Your task to perform on an android device: Clear the shopping cart on target. Search for "lenovo thinkpad" on target, select the first entry, and add it to the cart. Image 0: 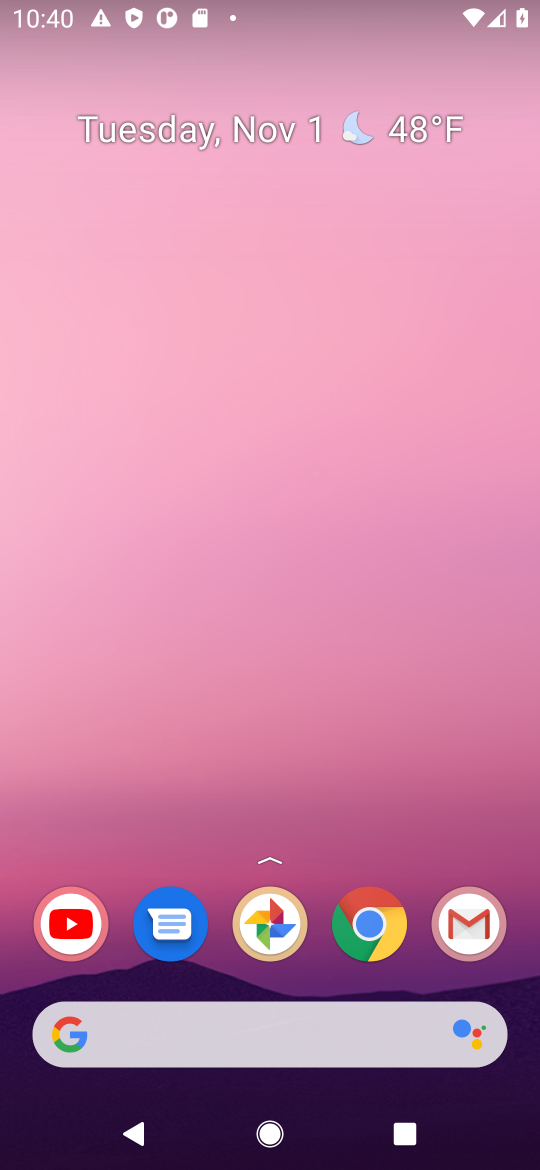
Step 0: click (370, 935)
Your task to perform on an android device: Clear the shopping cart on target. Search for "lenovo thinkpad" on target, select the first entry, and add it to the cart. Image 1: 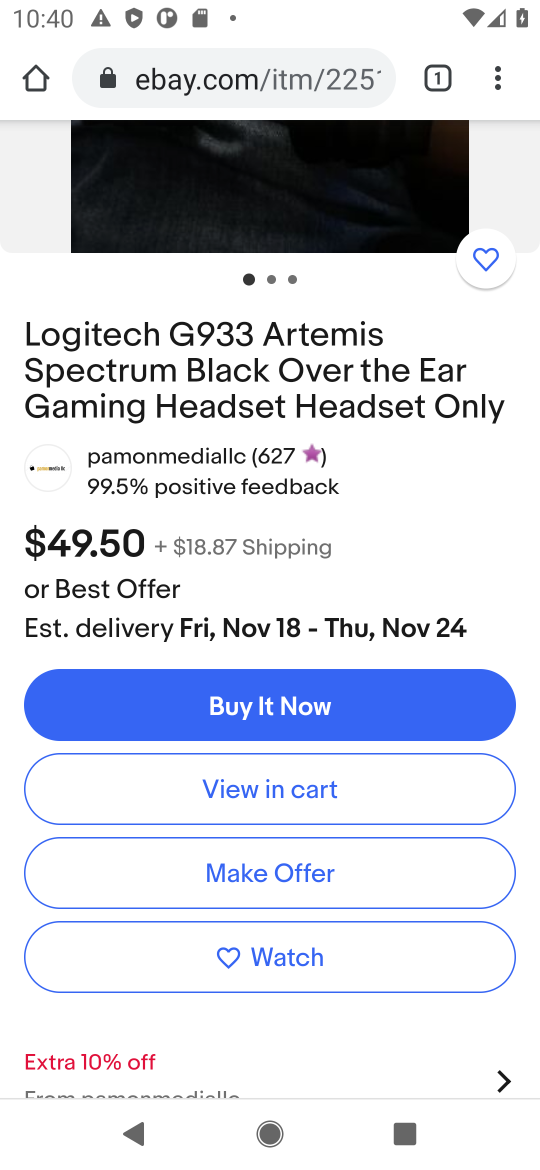
Step 1: click (318, 63)
Your task to perform on an android device: Clear the shopping cart on target. Search for "lenovo thinkpad" on target, select the first entry, and add it to the cart. Image 2: 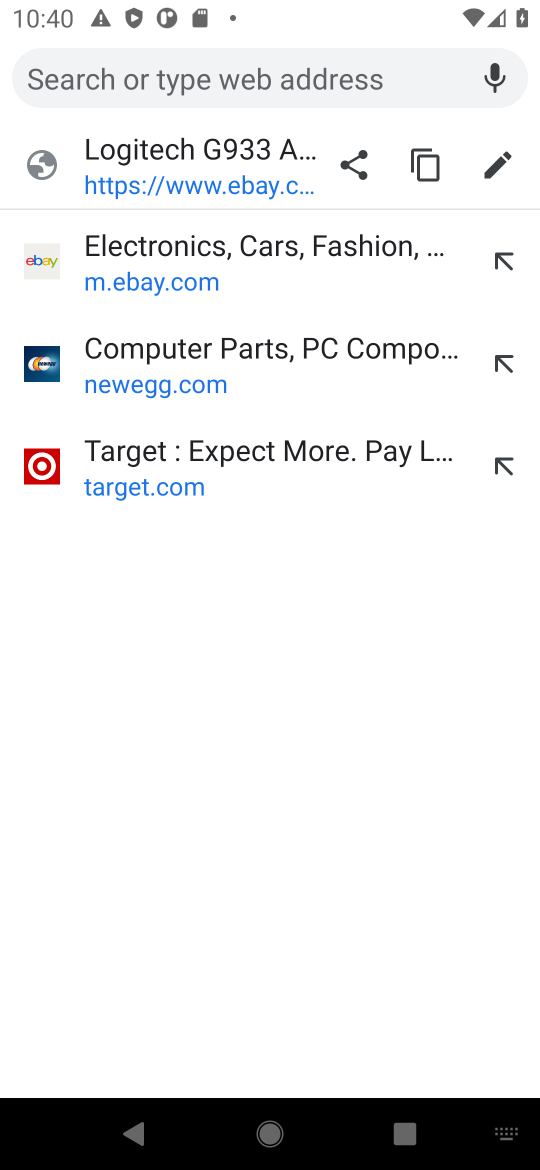
Step 2: type "target"
Your task to perform on an android device: Clear the shopping cart on target. Search for "lenovo thinkpad" on target, select the first entry, and add it to the cart. Image 3: 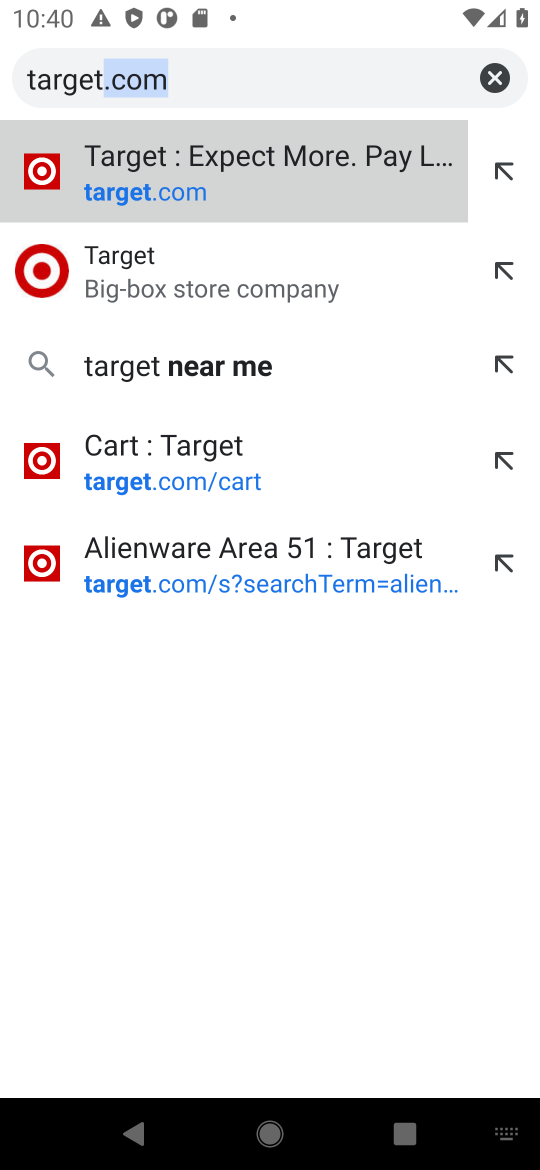
Step 3: press enter
Your task to perform on an android device: Clear the shopping cart on target. Search for "lenovo thinkpad" on target, select the first entry, and add it to the cart. Image 4: 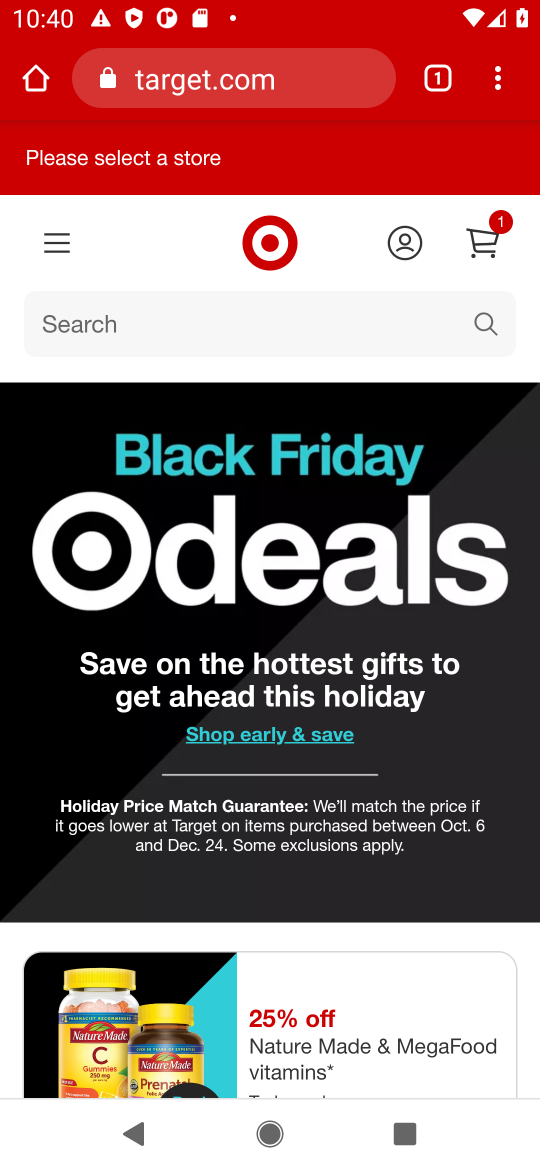
Step 4: click (485, 238)
Your task to perform on an android device: Clear the shopping cart on target. Search for "lenovo thinkpad" on target, select the first entry, and add it to the cart. Image 5: 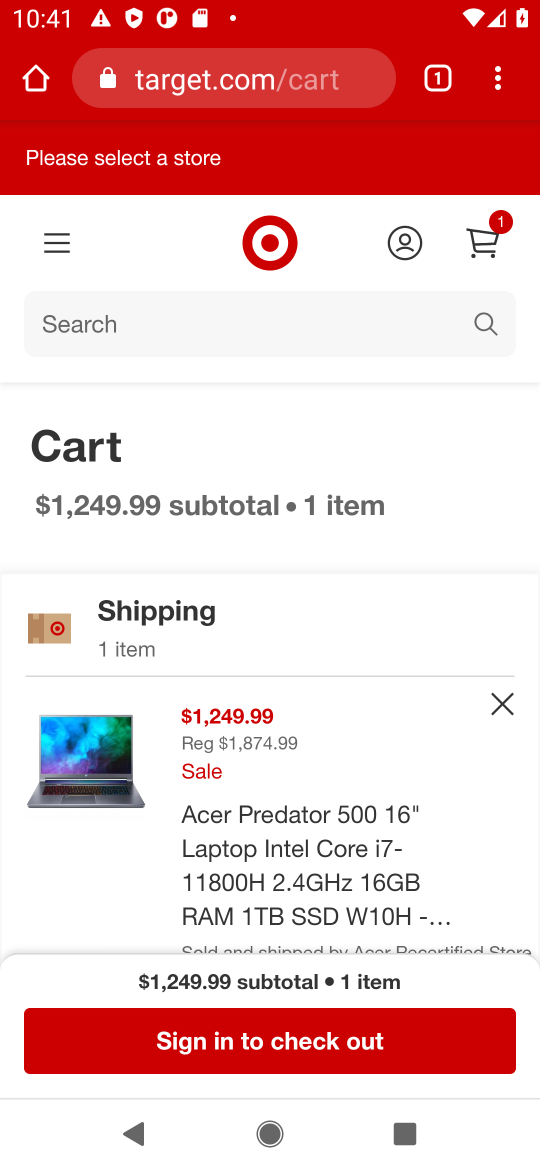
Step 5: click (503, 704)
Your task to perform on an android device: Clear the shopping cart on target. Search for "lenovo thinkpad" on target, select the first entry, and add it to the cart. Image 6: 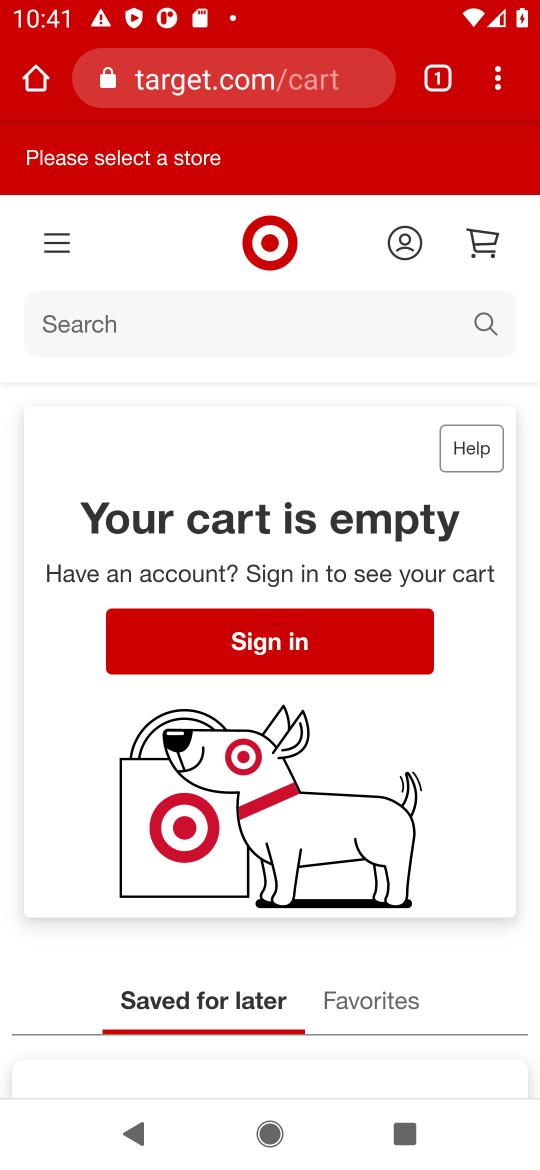
Step 6: click (413, 320)
Your task to perform on an android device: Clear the shopping cart on target. Search for "lenovo thinkpad" on target, select the first entry, and add it to the cart. Image 7: 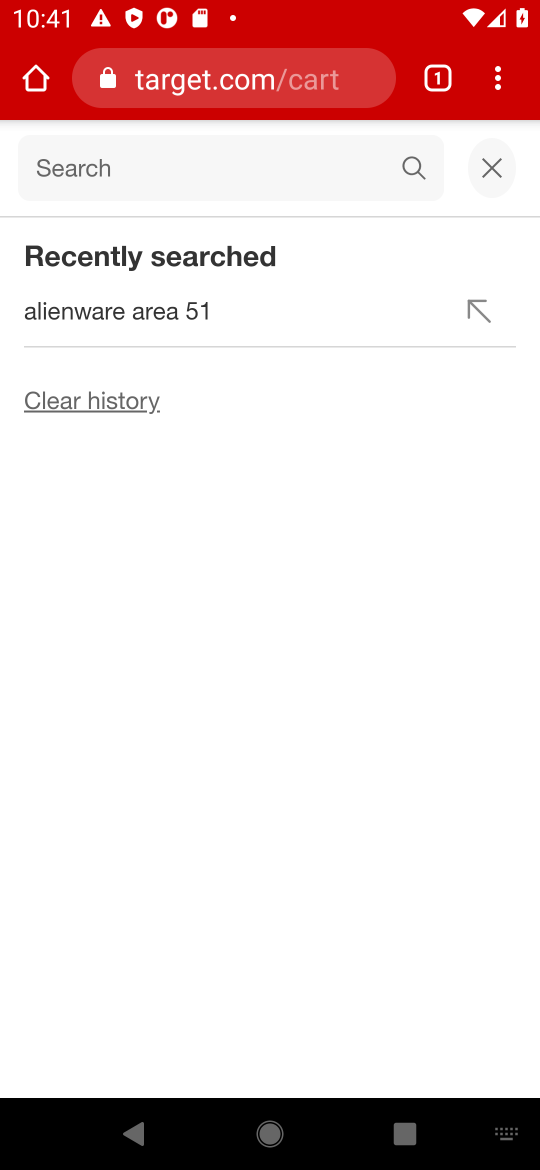
Step 7: type "lenovo thinkpad"
Your task to perform on an android device: Clear the shopping cart on target. Search for "lenovo thinkpad" on target, select the first entry, and add it to the cart. Image 8: 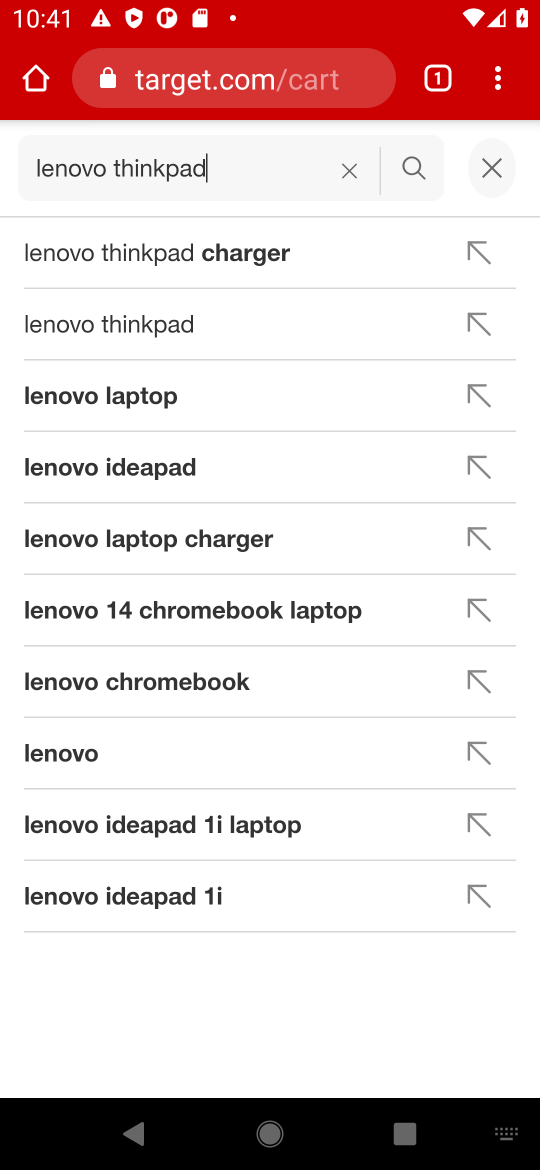
Step 8: click (415, 163)
Your task to perform on an android device: Clear the shopping cart on target. Search for "lenovo thinkpad" on target, select the first entry, and add it to the cart. Image 9: 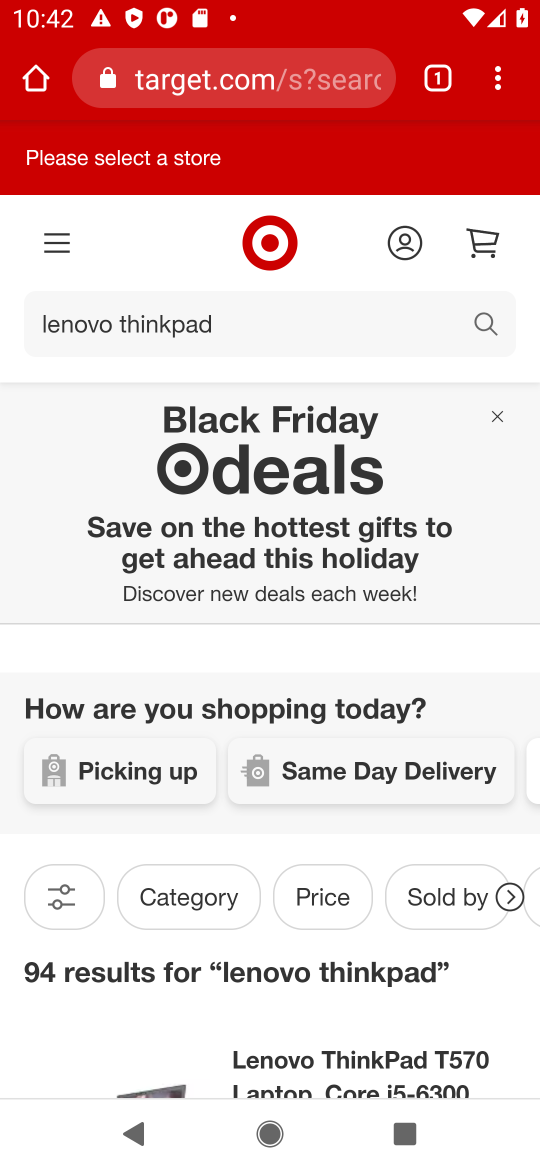
Step 9: drag from (491, 984) to (454, 574)
Your task to perform on an android device: Clear the shopping cart on target. Search for "lenovo thinkpad" on target, select the first entry, and add it to the cart. Image 10: 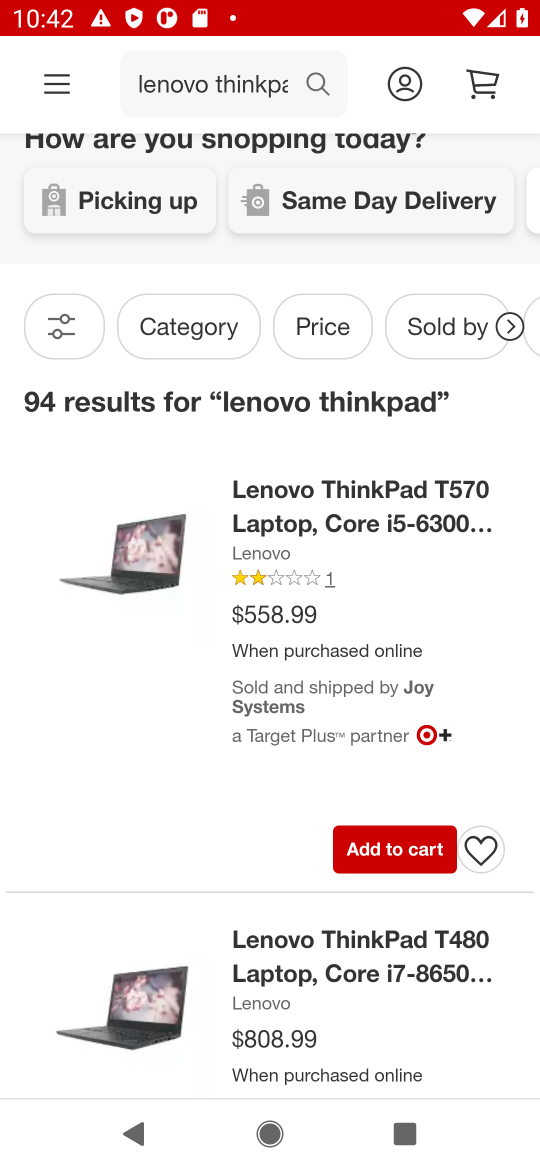
Step 10: click (226, 566)
Your task to perform on an android device: Clear the shopping cart on target. Search for "lenovo thinkpad" on target, select the first entry, and add it to the cart. Image 11: 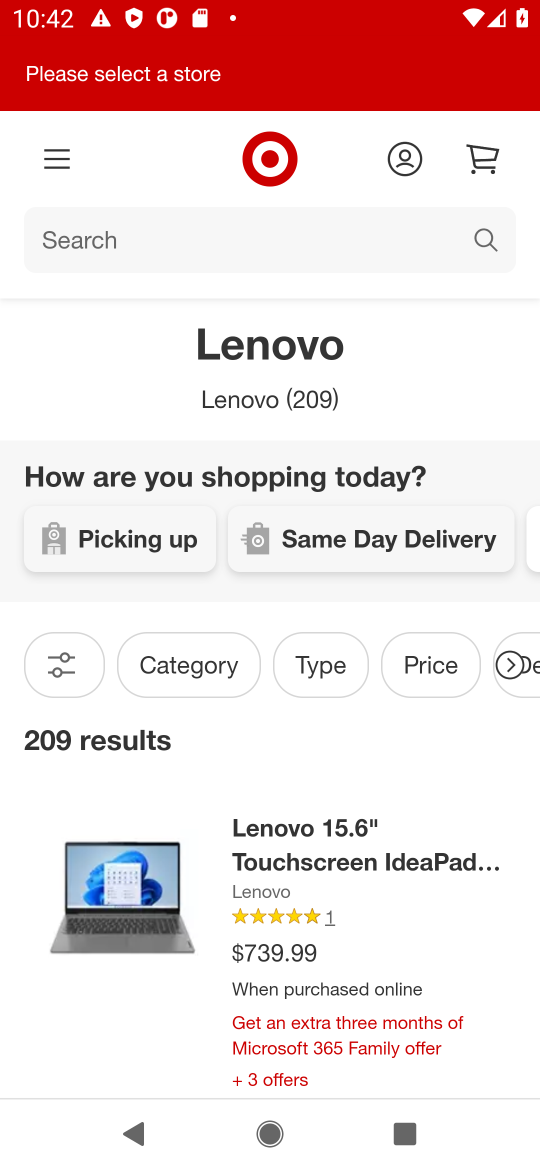
Step 11: drag from (268, 790) to (258, 565)
Your task to perform on an android device: Clear the shopping cart on target. Search for "lenovo thinkpad" on target, select the first entry, and add it to the cart. Image 12: 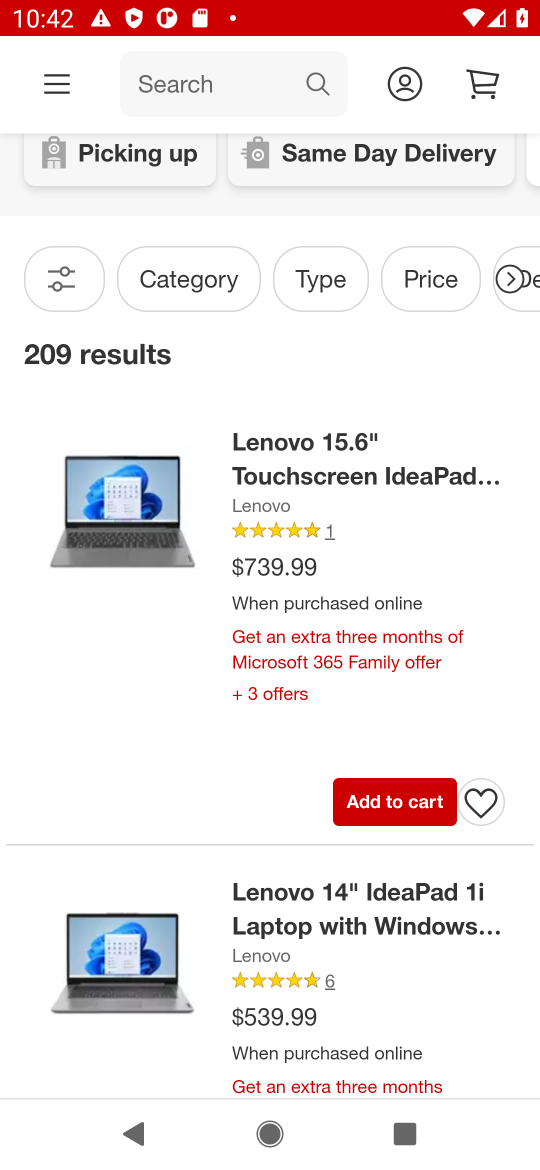
Step 12: click (166, 566)
Your task to perform on an android device: Clear the shopping cart on target. Search for "lenovo thinkpad" on target, select the first entry, and add it to the cart. Image 13: 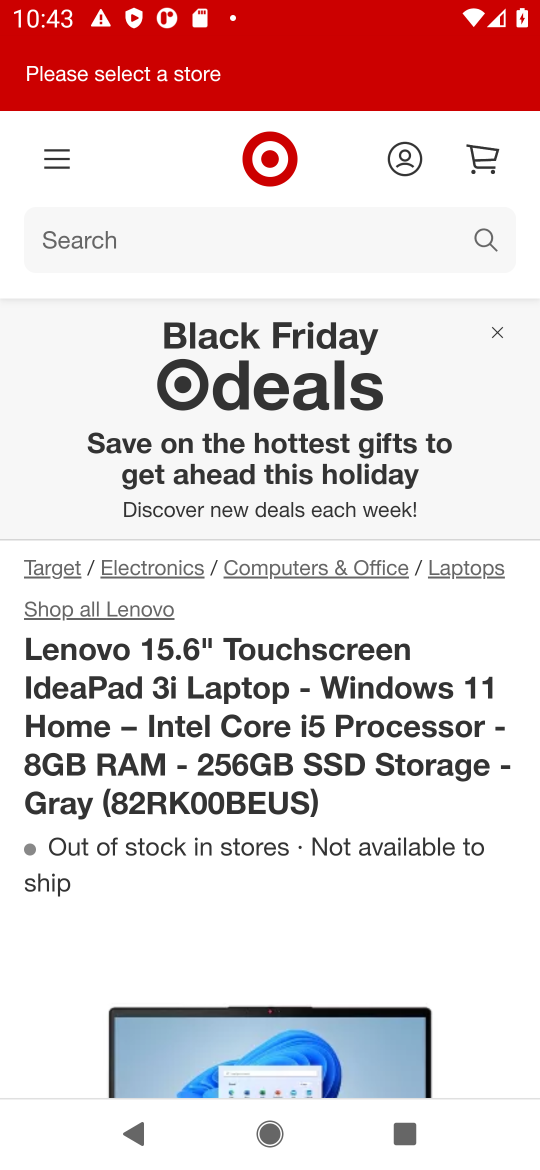
Step 13: drag from (431, 930) to (486, 534)
Your task to perform on an android device: Clear the shopping cart on target. Search for "lenovo thinkpad" on target, select the first entry, and add it to the cart. Image 14: 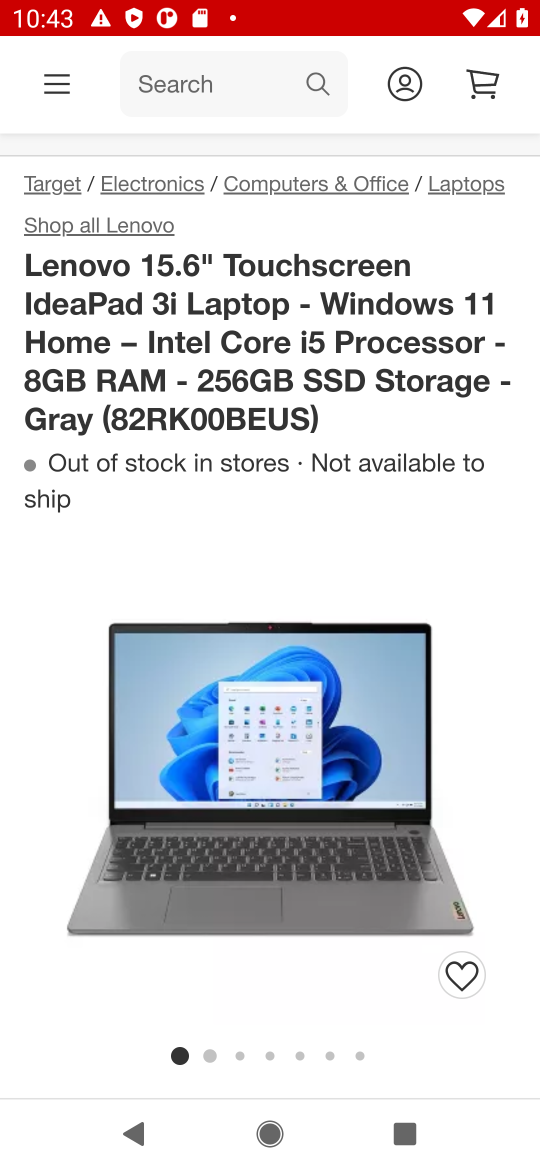
Step 14: drag from (509, 836) to (483, 515)
Your task to perform on an android device: Clear the shopping cart on target. Search for "lenovo thinkpad" on target, select the first entry, and add it to the cart. Image 15: 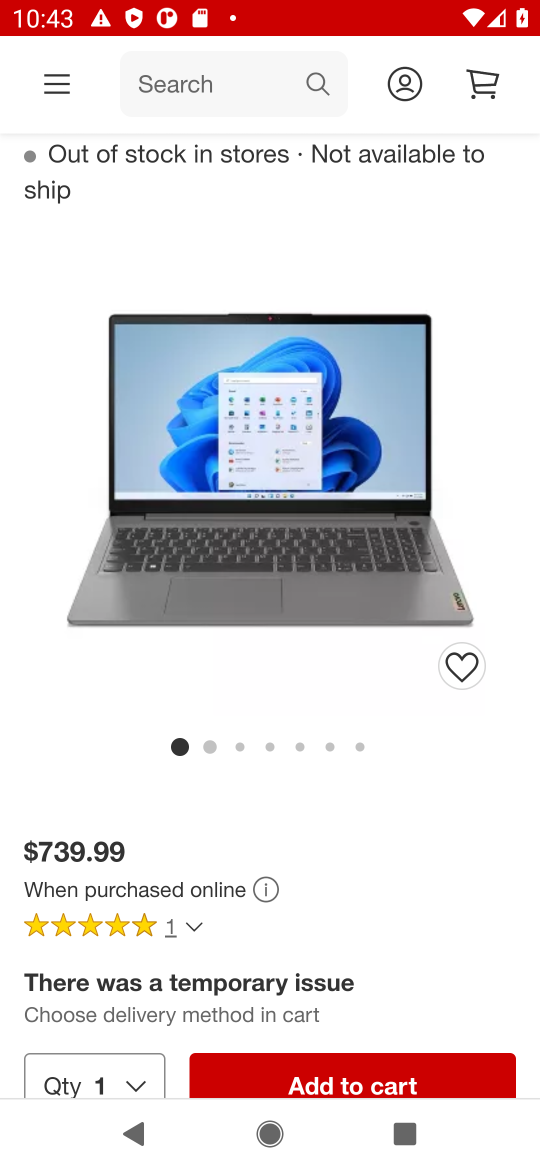
Step 15: click (347, 1072)
Your task to perform on an android device: Clear the shopping cart on target. Search for "lenovo thinkpad" on target, select the first entry, and add it to the cart. Image 16: 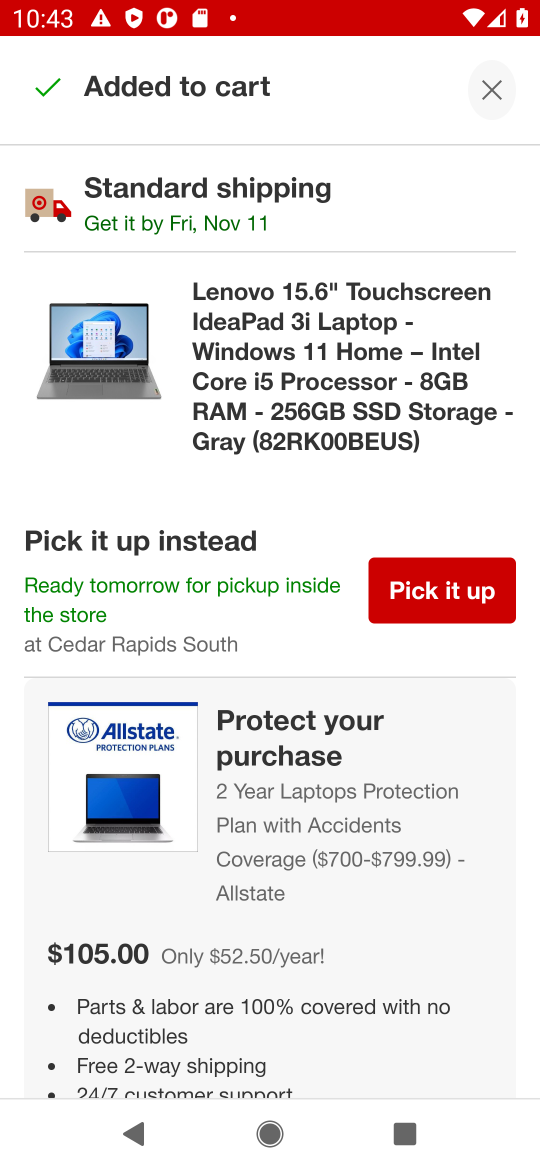
Step 16: task complete